Your task to perform on an android device: change timer sound Image 0: 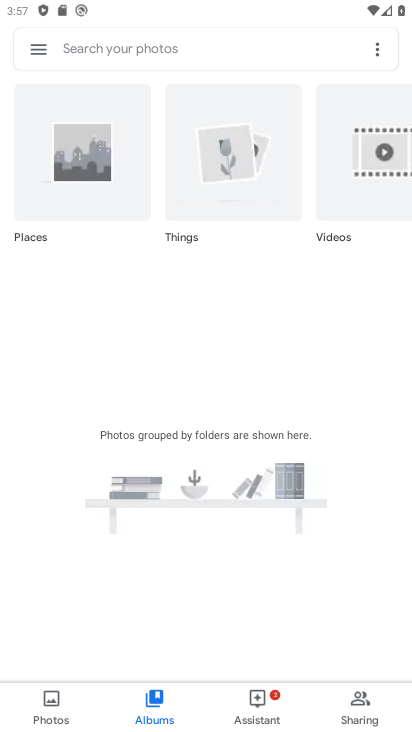
Step 0: press home button
Your task to perform on an android device: change timer sound Image 1: 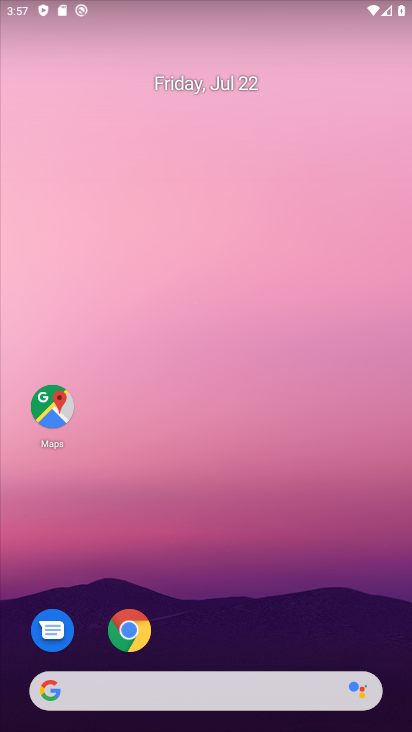
Step 1: drag from (197, 585) to (226, 71)
Your task to perform on an android device: change timer sound Image 2: 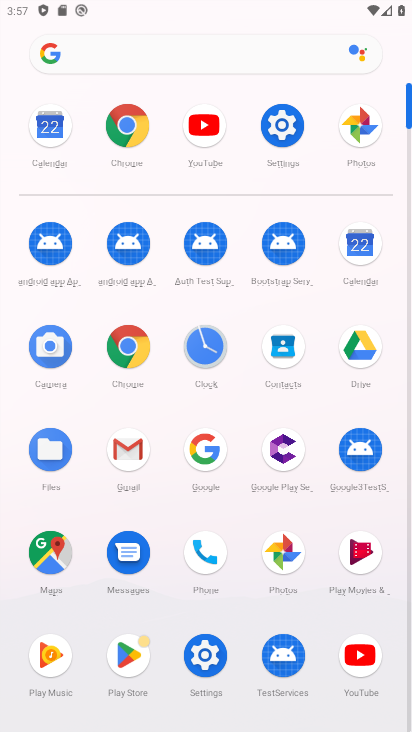
Step 2: click (202, 676)
Your task to perform on an android device: change timer sound Image 3: 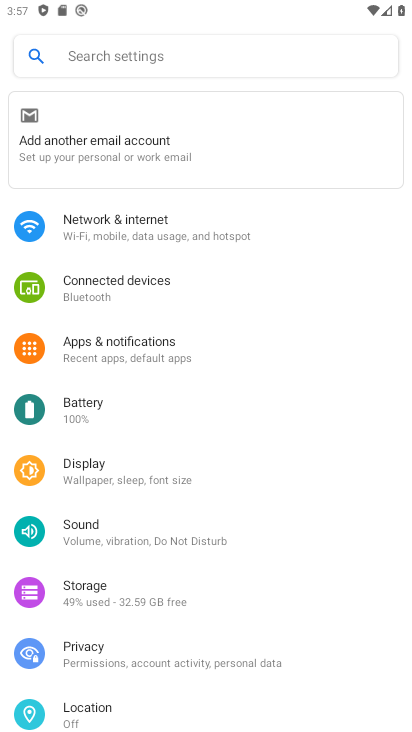
Step 3: press home button
Your task to perform on an android device: change timer sound Image 4: 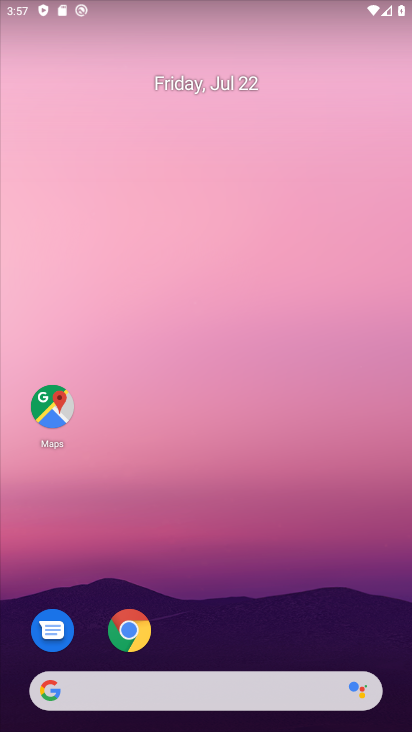
Step 4: drag from (261, 557) to (194, 6)
Your task to perform on an android device: change timer sound Image 5: 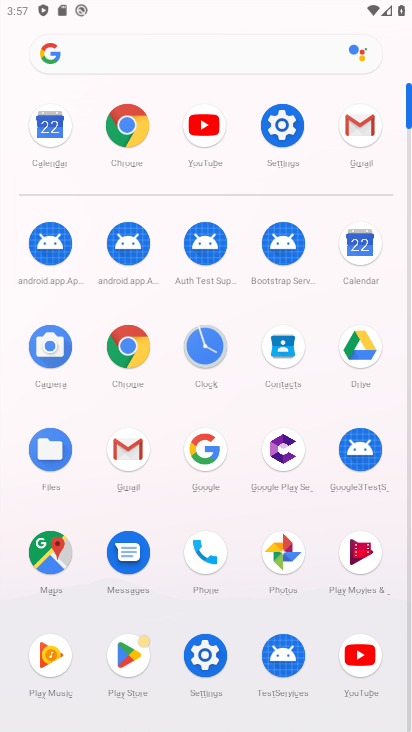
Step 5: click (206, 336)
Your task to perform on an android device: change timer sound Image 6: 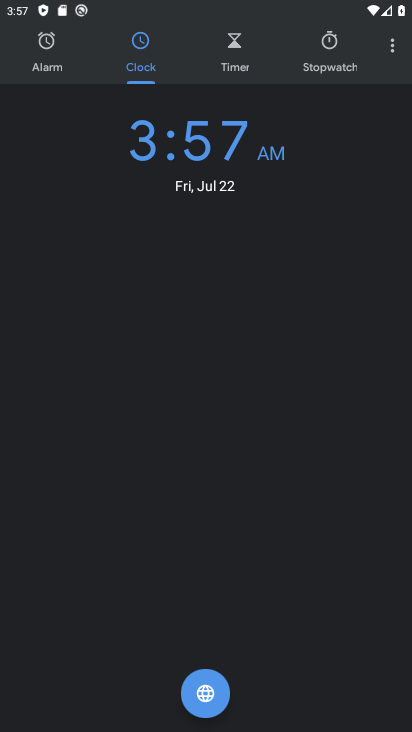
Step 6: click (388, 43)
Your task to perform on an android device: change timer sound Image 7: 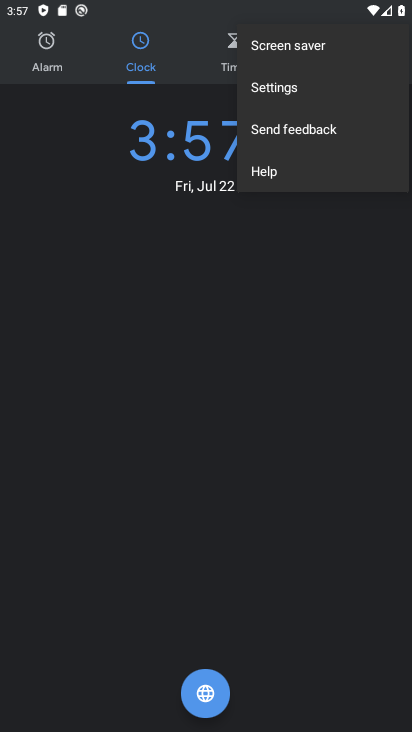
Step 7: click (274, 93)
Your task to perform on an android device: change timer sound Image 8: 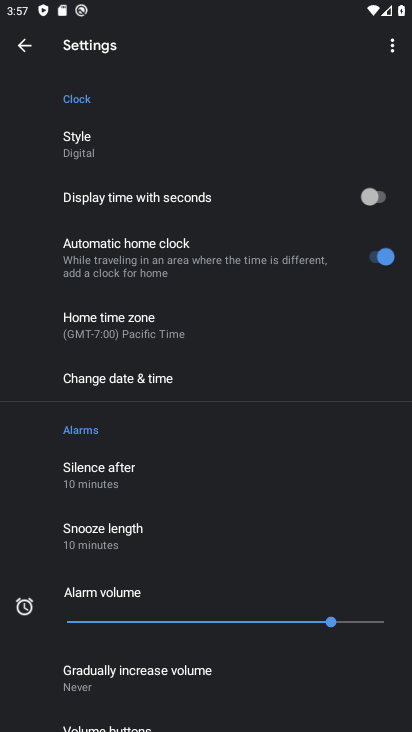
Step 8: drag from (164, 533) to (183, 271)
Your task to perform on an android device: change timer sound Image 9: 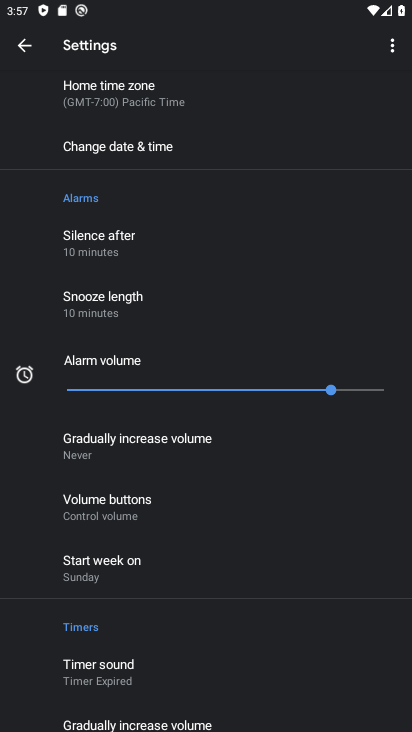
Step 9: click (110, 676)
Your task to perform on an android device: change timer sound Image 10: 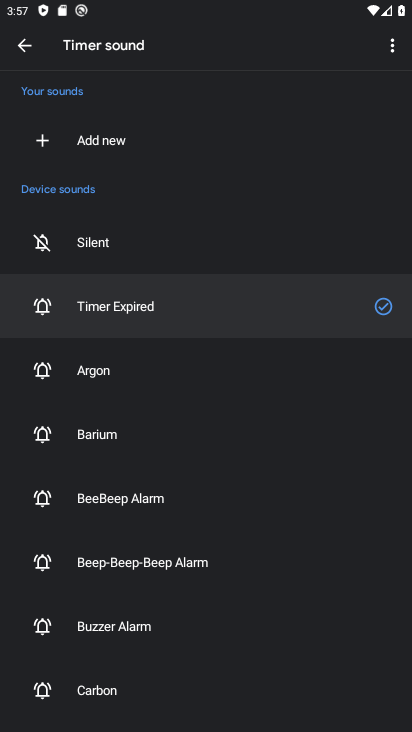
Step 10: click (103, 450)
Your task to perform on an android device: change timer sound Image 11: 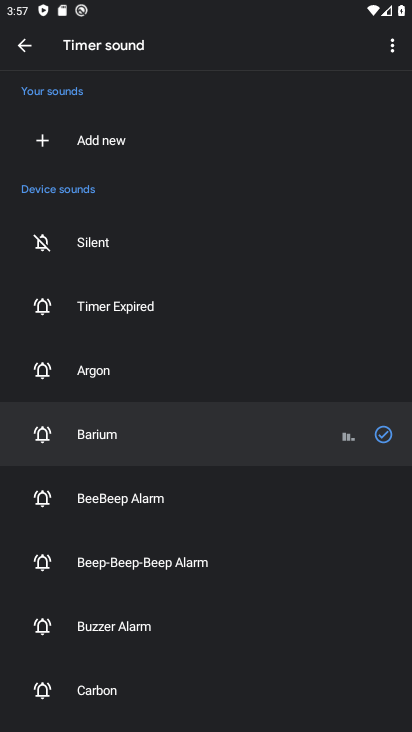
Step 11: task complete